Your task to perform on an android device: Go to calendar. Show me events next week Image 0: 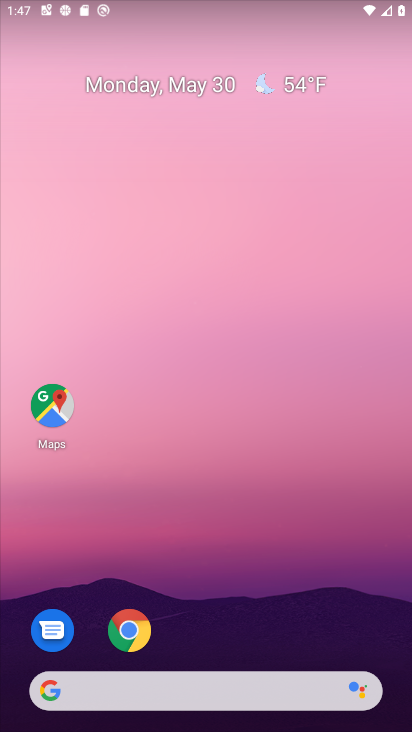
Step 0: press home button
Your task to perform on an android device: Go to calendar. Show me events next week Image 1: 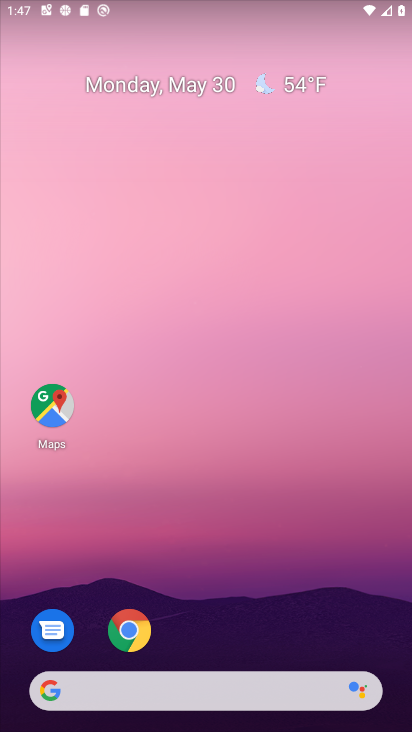
Step 1: drag from (146, 682) to (304, 175)
Your task to perform on an android device: Go to calendar. Show me events next week Image 2: 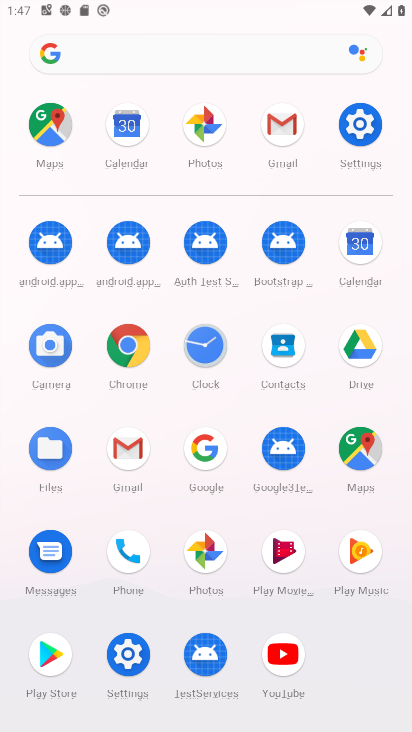
Step 2: click (365, 243)
Your task to perform on an android device: Go to calendar. Show me events next week Image 3: 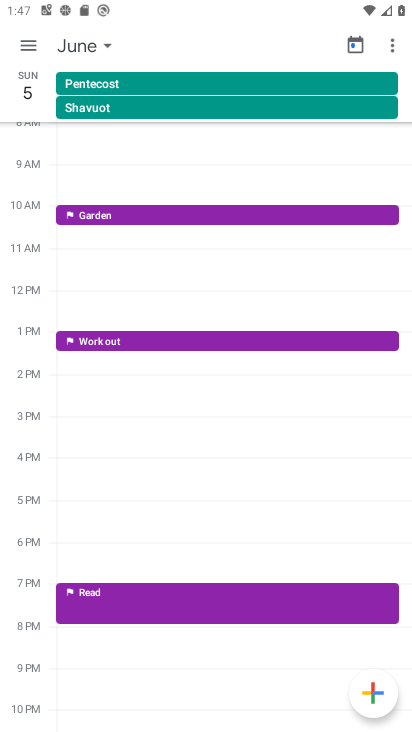
Step 3: click (74, 44)
Your task to perform on an android device: Go to calendar. Show me events next week Image 4: 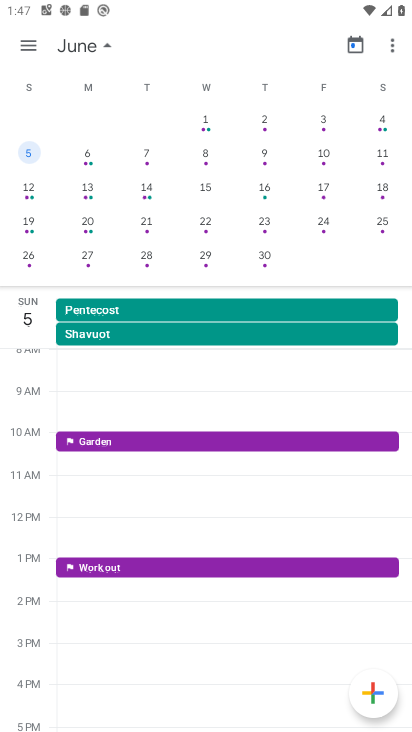
Step 4: click (202, 119)
Your task to perform on an android device: Go to calendar. Show me events next week Image 5: 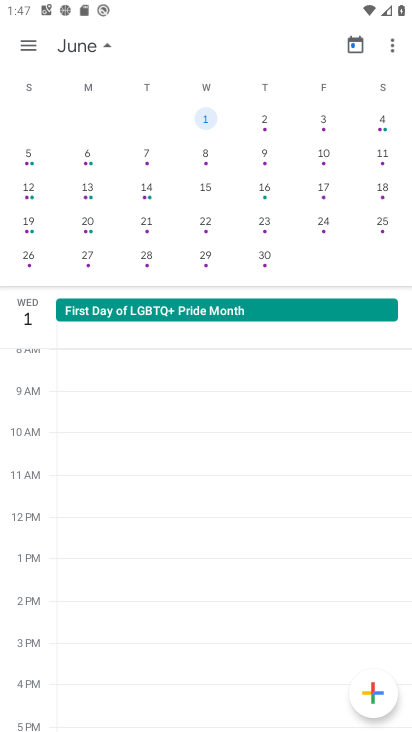
Step 5: click (28, 160)
Your task to perform on an android device: Go to calendar. Show me events next week Image 6: 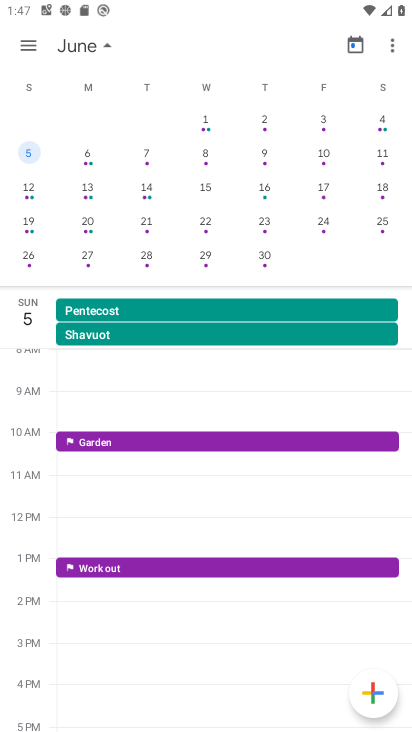
Step 6: click (31, 48)
Your task to perform on an android device: Go to calendar. Show me events next week Image 7: 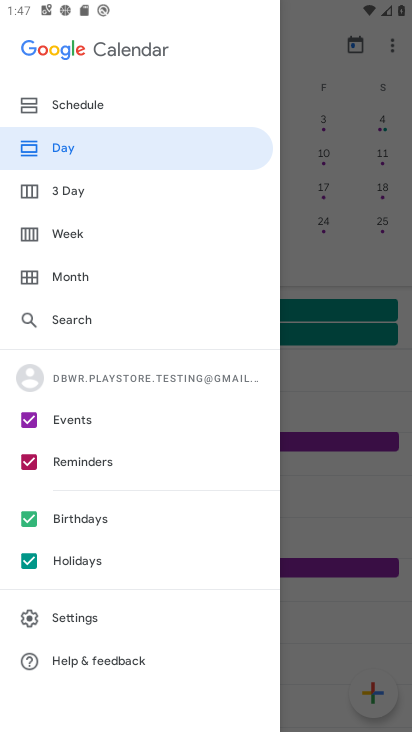
Step 7: click (76, 235)
Your task to perform on an android device: Go to calendar. Show me events next week Image 8: 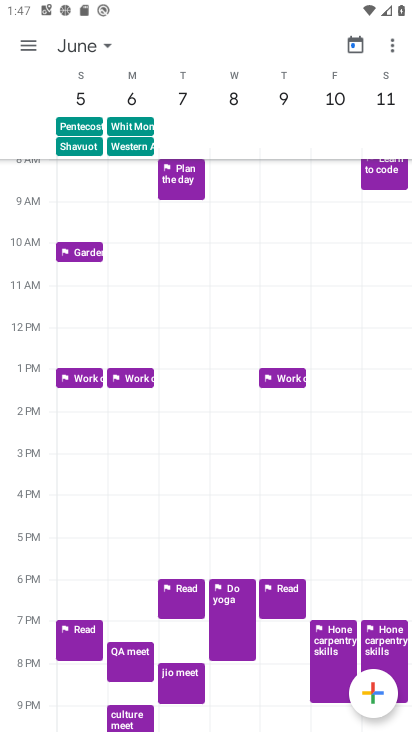
Step 8: click (35, 40)
Your task to perform on an android device: Go to calendar. Show me events next week Image 9: 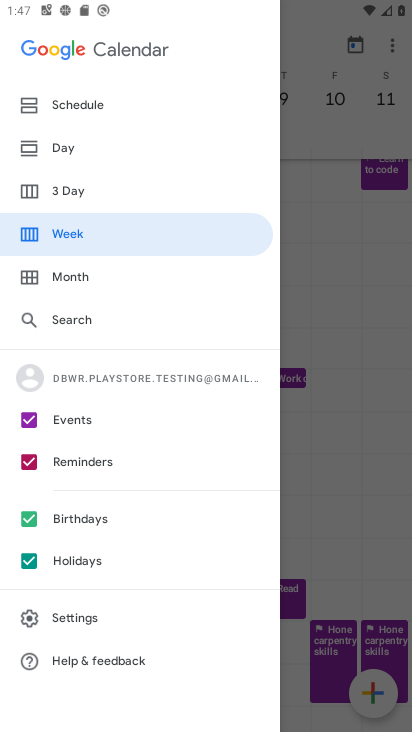
Step 9: click (77, 108)
Your task to perform on an android device: Go to calendar. Show me events next week Image 10: 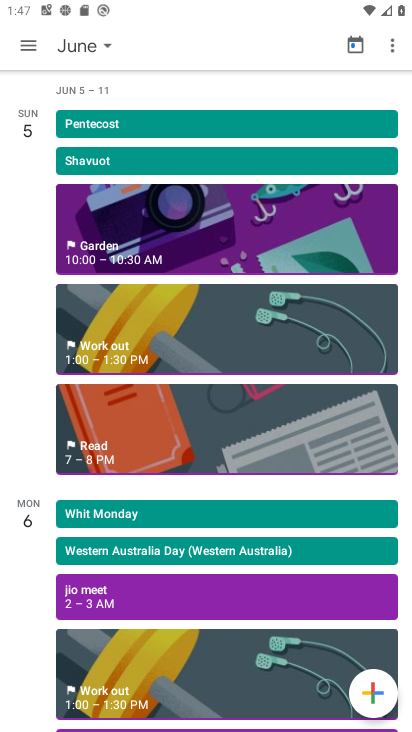
Step 10: click (114, 236)
Your task to perform on an android device: Go to calendar. Show me events next week Image 11: 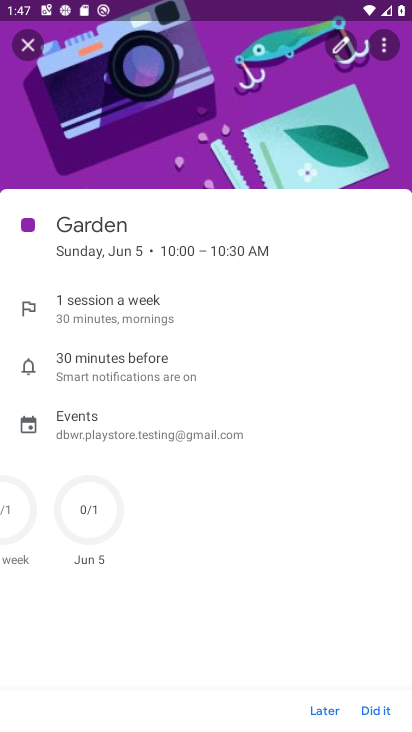
Step 11: task complete